Your task to perform on an android device: uninstall "Viber Messenger" Image 0: 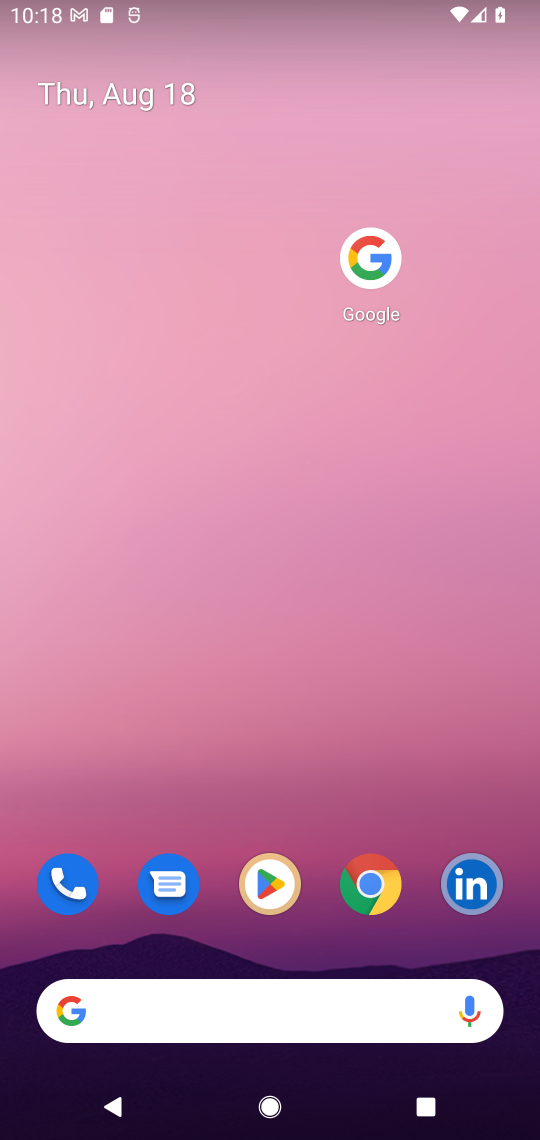
Step 0: drag from (317, 965) to (319, 198)
Your task to perform on an android device: uninstall "Viber Messenger" Image 1: 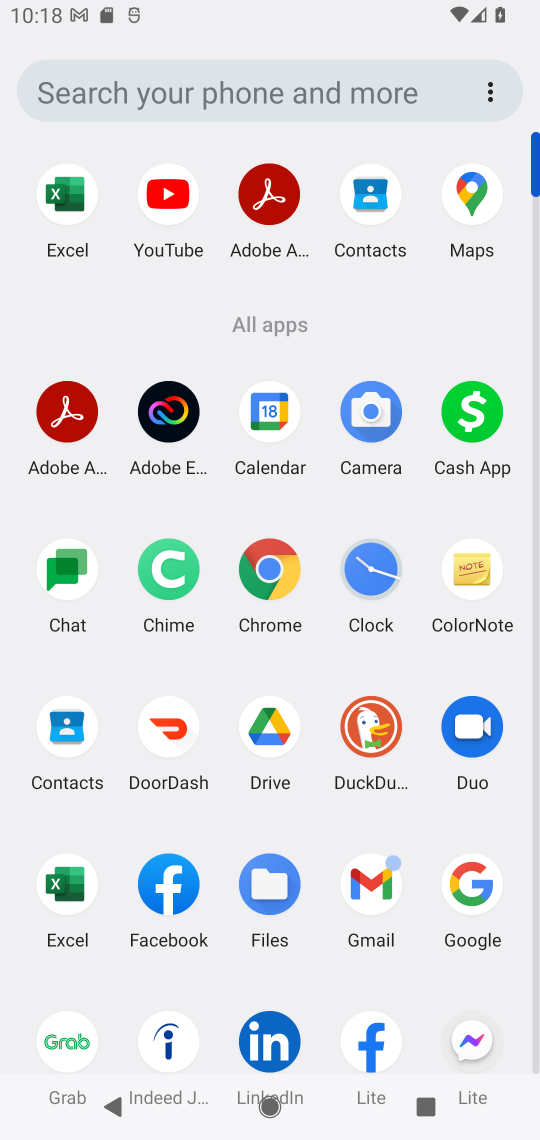
Step 1: drag from (322, 1001) to (322, 371)
Your task to perform on an android device: uninstall "Viber Messenger" Image 2: 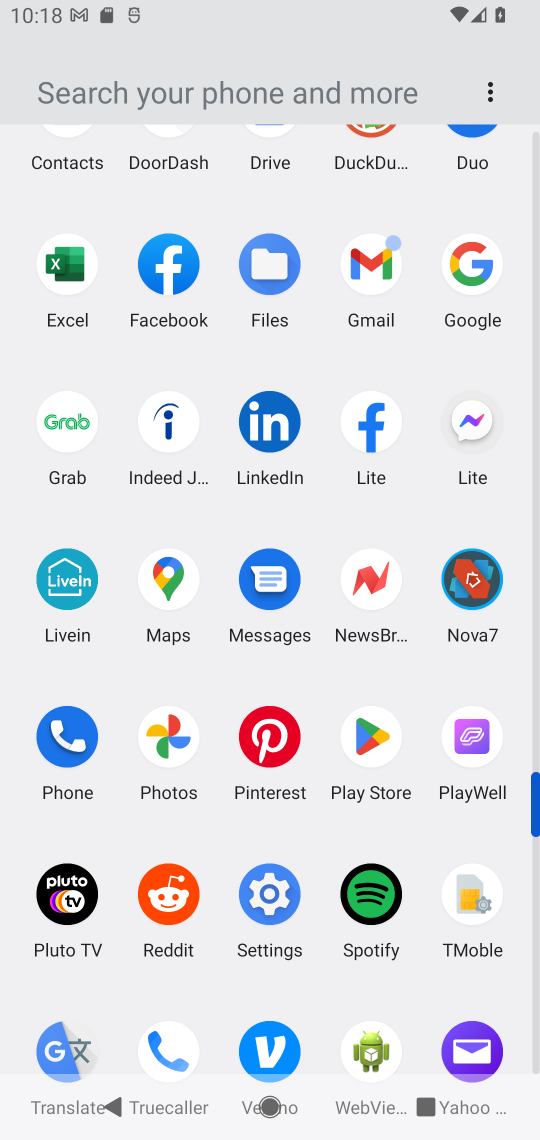
Step 2: click (265, 1055)
Your task to perform on an android device: uninstall "Viber Messenger" Image 3: 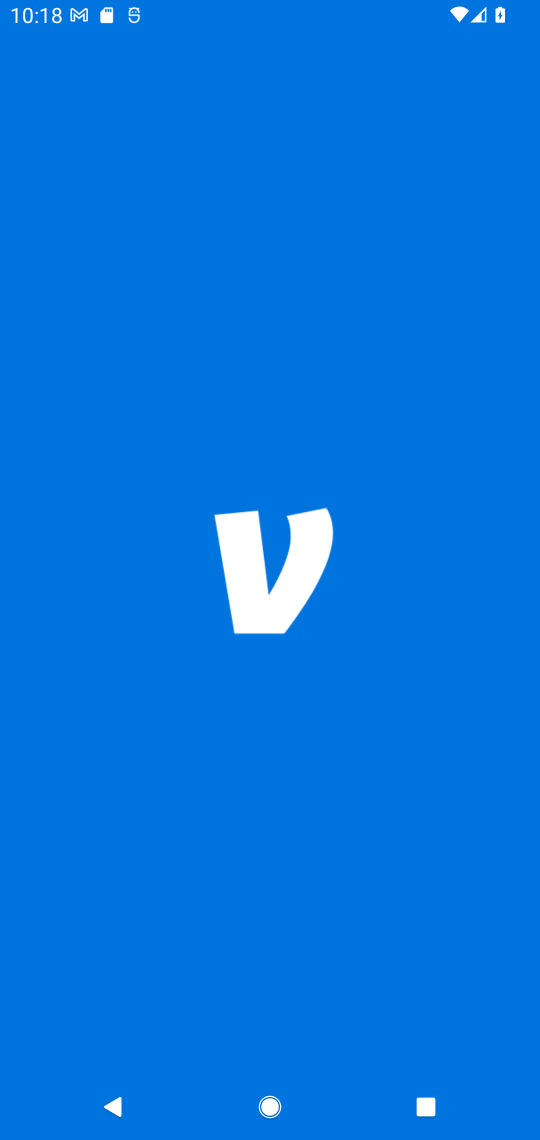
Step 3: task complete